Your task to perform on an android device: Add usb-c to usb-b to the cart on costco.com, then select checkout. Image 0: 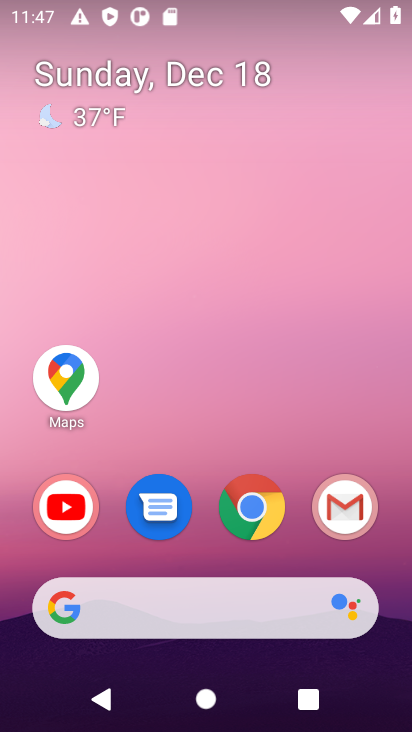
Step 0: click (242, 518)
Your task to perform on an android device: Add usb-c to usb-b to the cart on costco.com, then select checkout. Image 1: 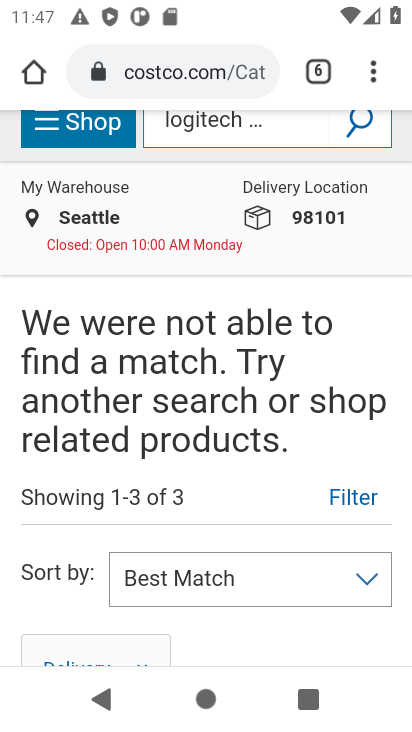
Step 1: drag from (169, 276) to (172, 472)
Your task to perform on an android device: Add usb-c to usb-b to the cart on costco.com, then select checkout. Image 2: 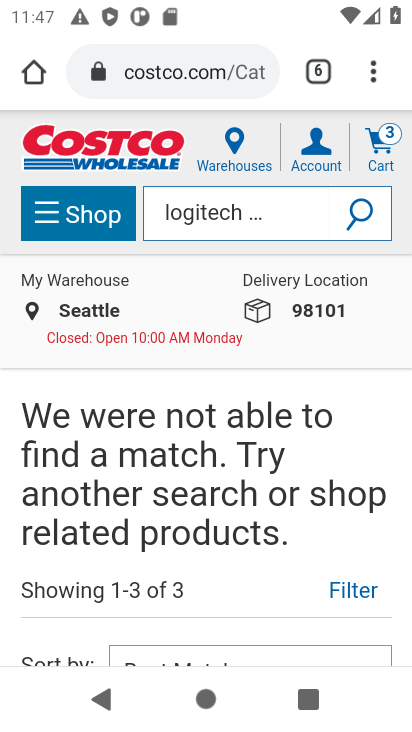
Step 2: click (208, 215)
Your task to perform on an android device: Add usb-c to usb-b to the cart on costco.com, then select checkout. Image 3: 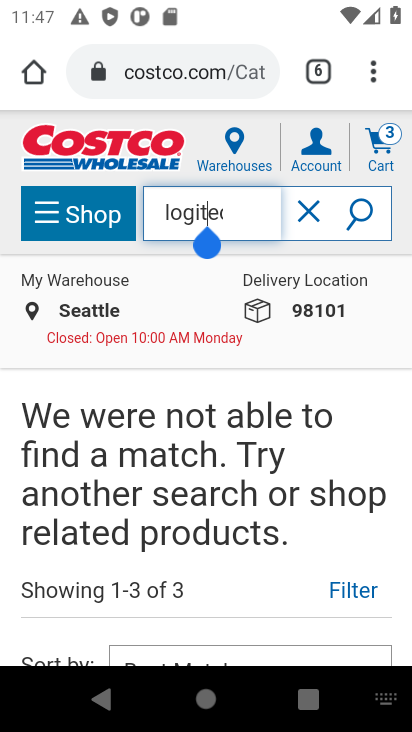
Step 3: click (311, 213)
Your task to perform on an android device: Add usb-c to usb-b to the cart on costco.com, then select checkout. Image 4: 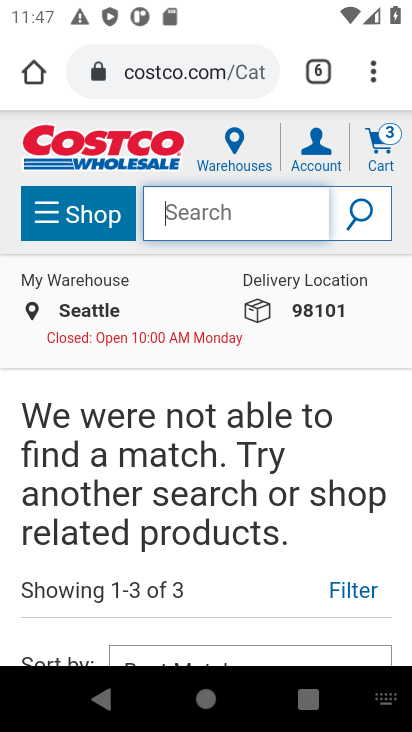
Step 4: type "usb-c to usb-b "
Your task to perform on an android device: Add usb-c to usb-b to the cart on costco.com, then select checkout. Image 5: 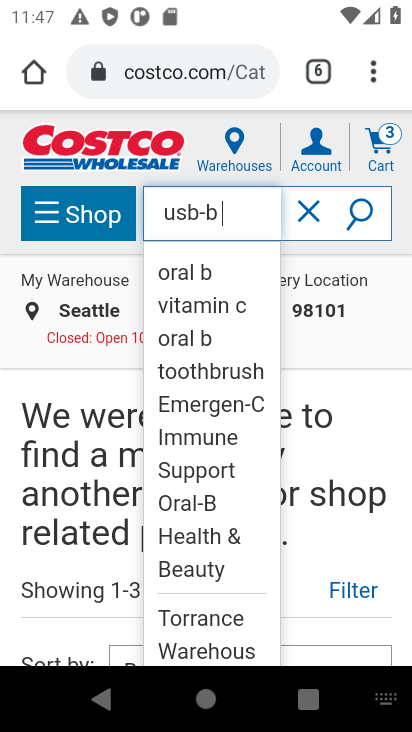
Step 5: click (354, 223)
Your task to perform on an android device: Add usb-c to usb-b to the cart on costco.com, then select checkout. Image 6: 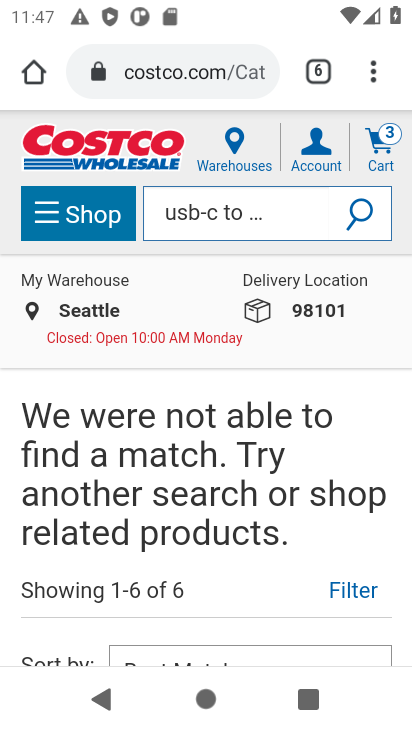
Step 6: task complete